Your task to perform on an android device: Open CNN.com Image 0: 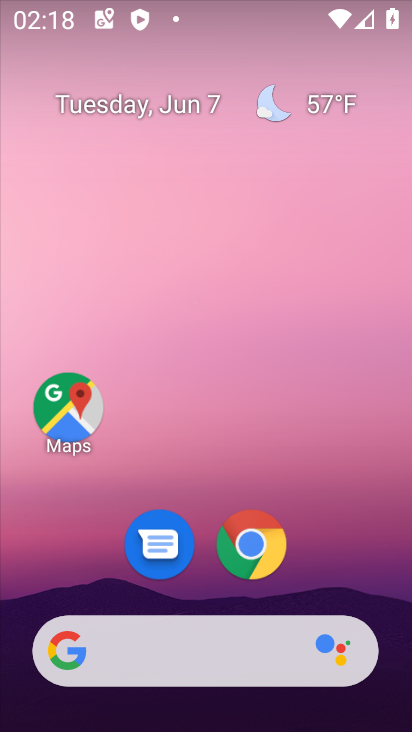
Step 0: click (256, 549)
Your task to perform on an android device: Open CNN.com Image 1: 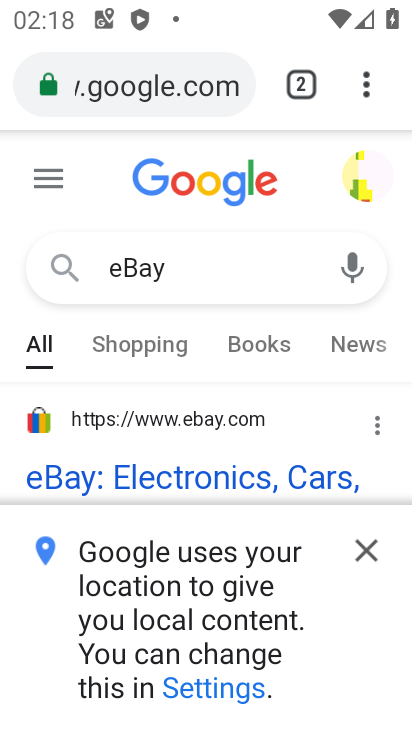
Step 1: click (348, 78)
Your task to perform on an android device: Open CNN.com Image 2: 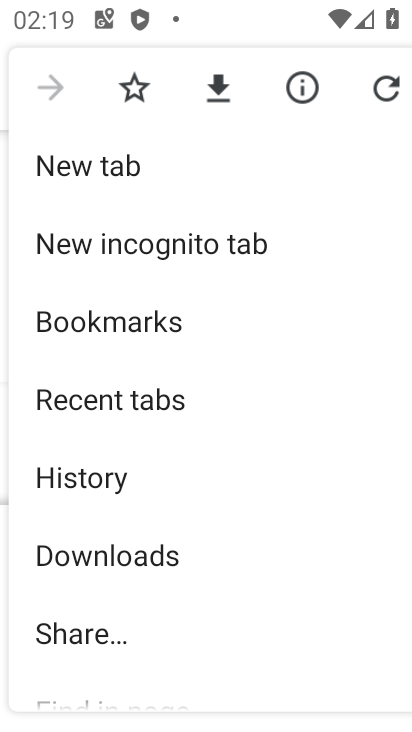
Step 2: click (78, 187)
Your task to perform on an android device: Open CNN.com Image 3: 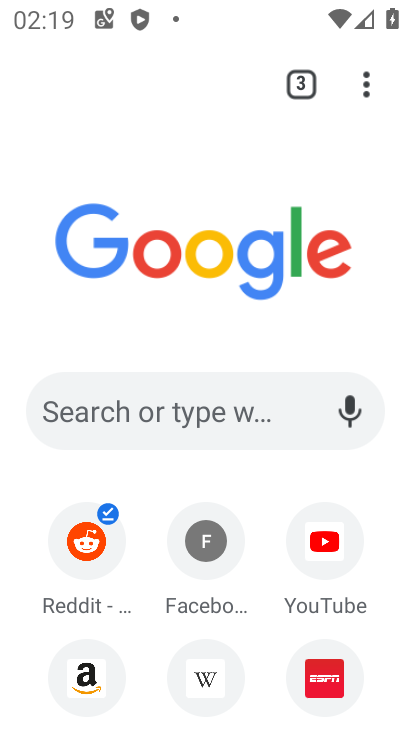
Step 3: click (105, 407)
Your task to perform on an android device: Open CNN.com Image 4: 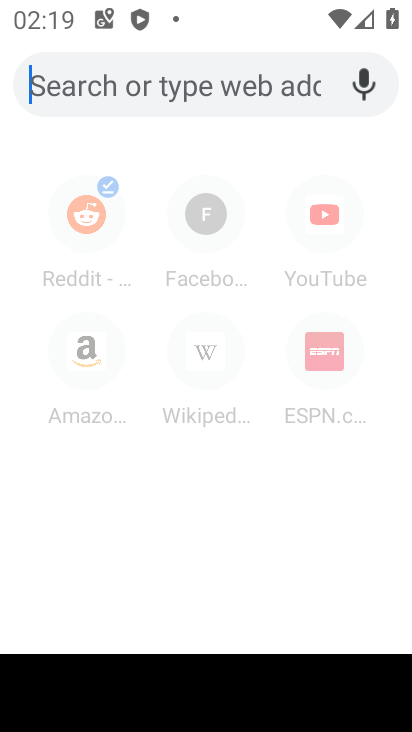
Step 4: type " CNN.com"
Your task to perform on an android device: Open CNN.com Image 5: 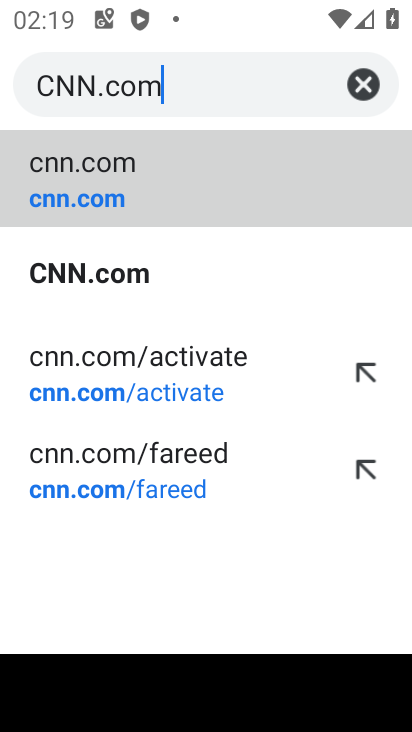
Step 5: click (98, 214)
Your task to perform on an android device: Open CNN.com Image 6: 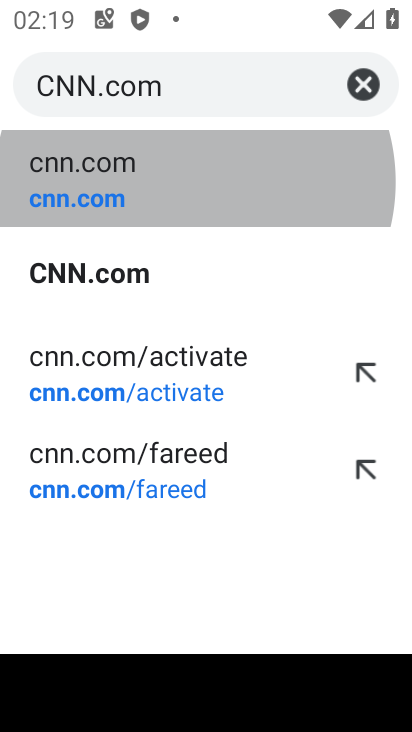
Step 6: click (103, 185)
Your task to perform on an android device: Open CNN.com Image 7: 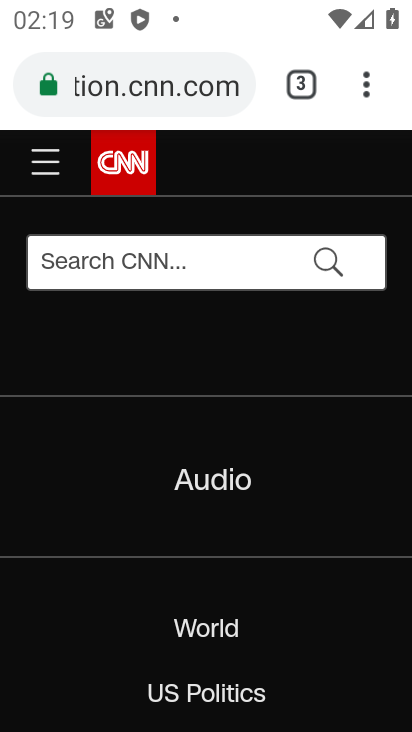
Step 7: task complete